Your task to perform on an android device: Open calendar and show me the first week of next month Image 0: 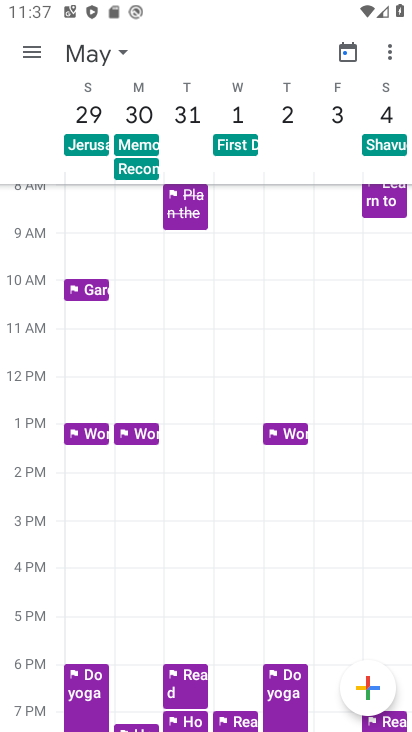
Step 0: click (116, 44)
Your task to perform on an android device: Open calendar and show me the first week of next month Image 1: 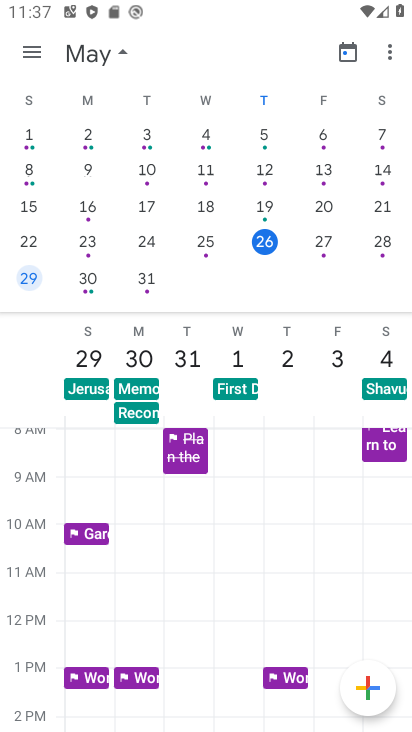
Step 1: drag from (379, 201) to (59, 207)
Your task to perform on an android device: Open calendar and show me the first week of next month Image 2: 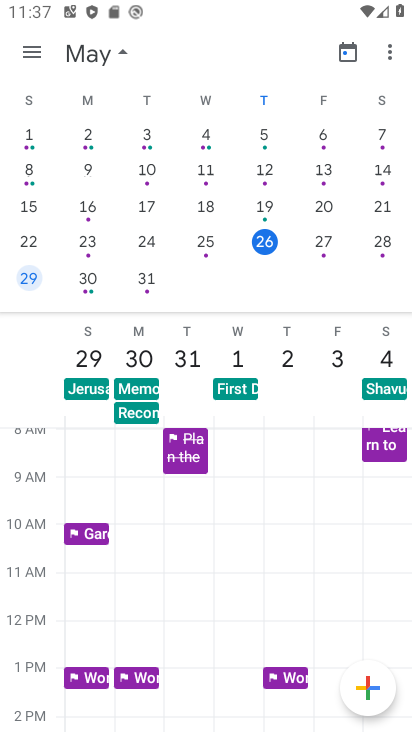
Step 2: drag from (355, 170) to (40, 157)
Your task to perform on an android device: Open calendar and show me the first week of next month Image 3: 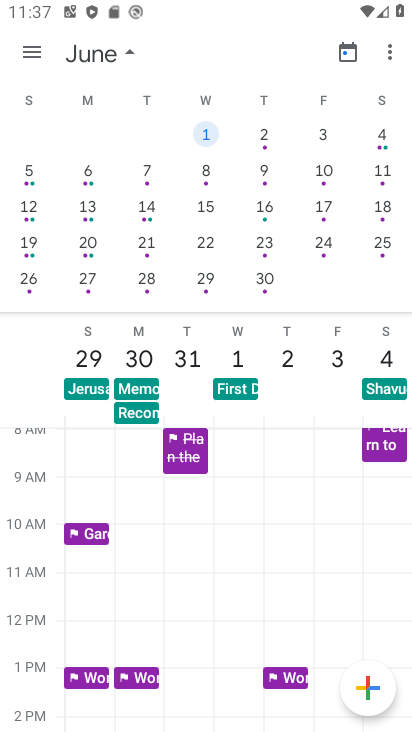
Step 3: click (314, 127)
Your task to perform on an android device: Open calendar and show me the first week of next month Image 4: 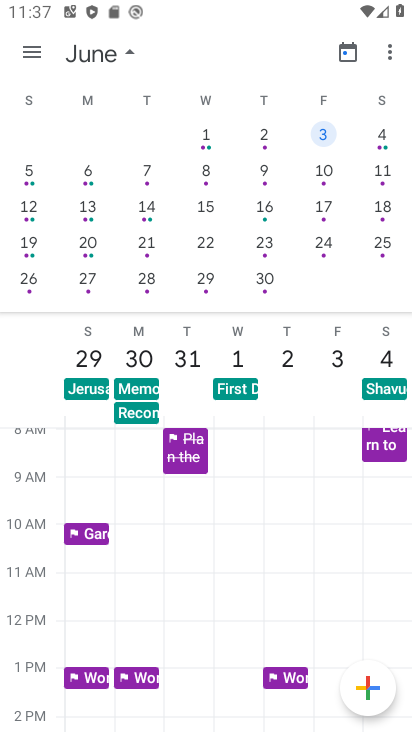
Step 4: click (30, 51)
Your task to perform on an android device: Open calendar and show me the first week of next month Image 5: 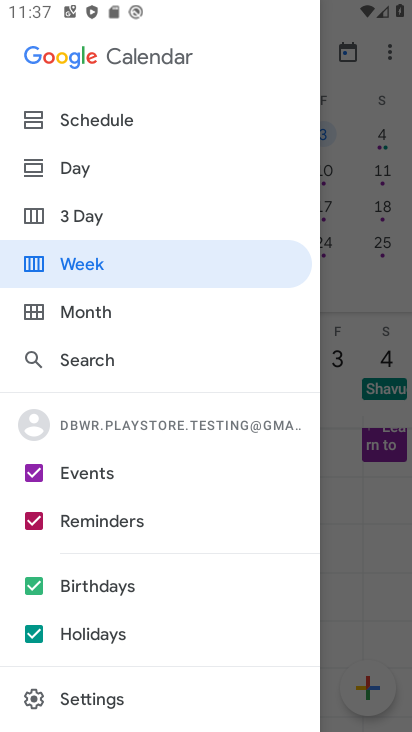
Step 5: click (113, 260)
Your task to perform on an android device: Open calendar and show me the first week of next month Image 6: 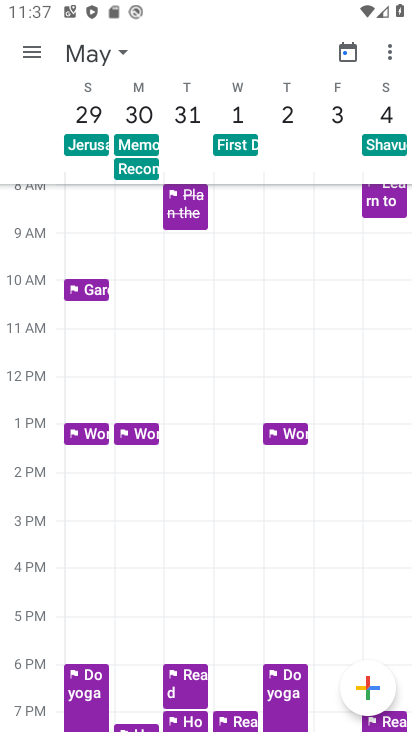
Step 6: task complete